Your task to perform on an android device: open app "DoorDash - Food Delivery" (install if not already installed) Image 0: 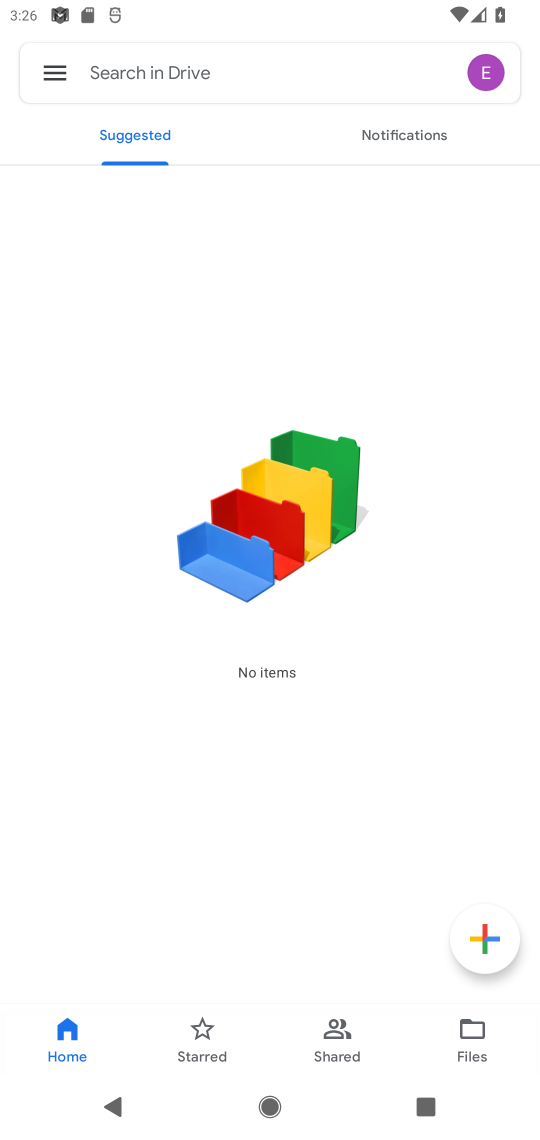
Step 0: press back button
Your task to perform on an android device: open app "DoorDash - Food Delivery" (install if not already installed) Image 1: 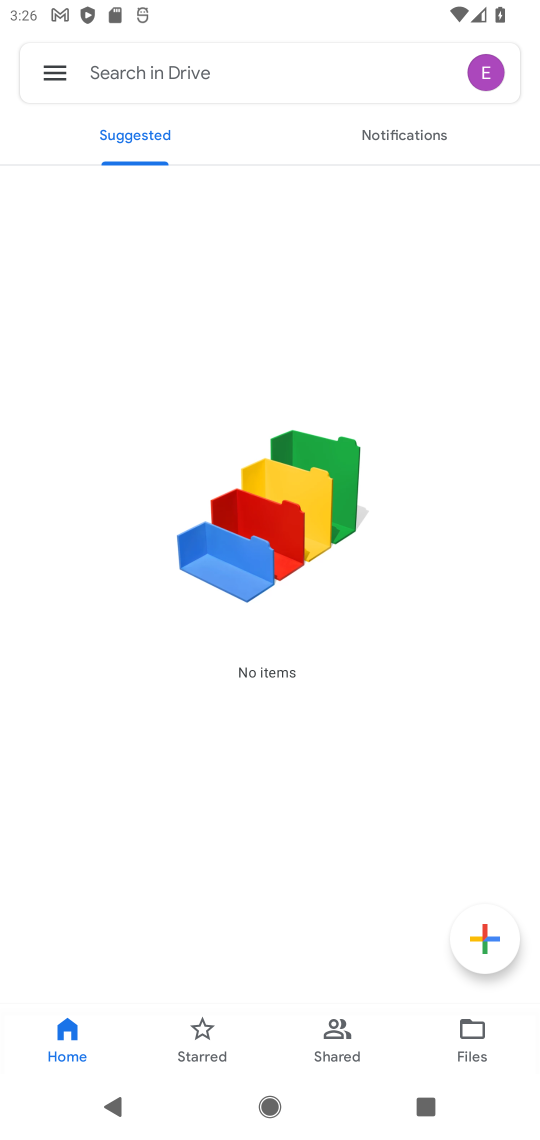
Step 1: press back button
Your task to perform on an android device: open app "DoorDash - Food Delivery" (install if not already installed) Image 2: 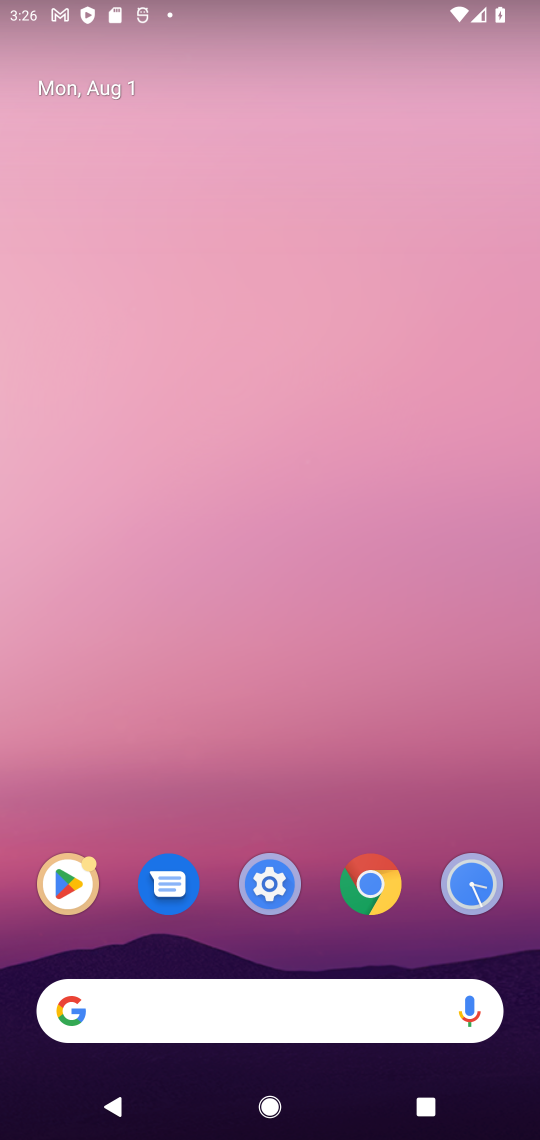
Step 2: drag from (288, 855) to (164, 67)
Your task to perform on an android device: open app "DoorDash - Food Delivery" (install if not already installed) Image 3: 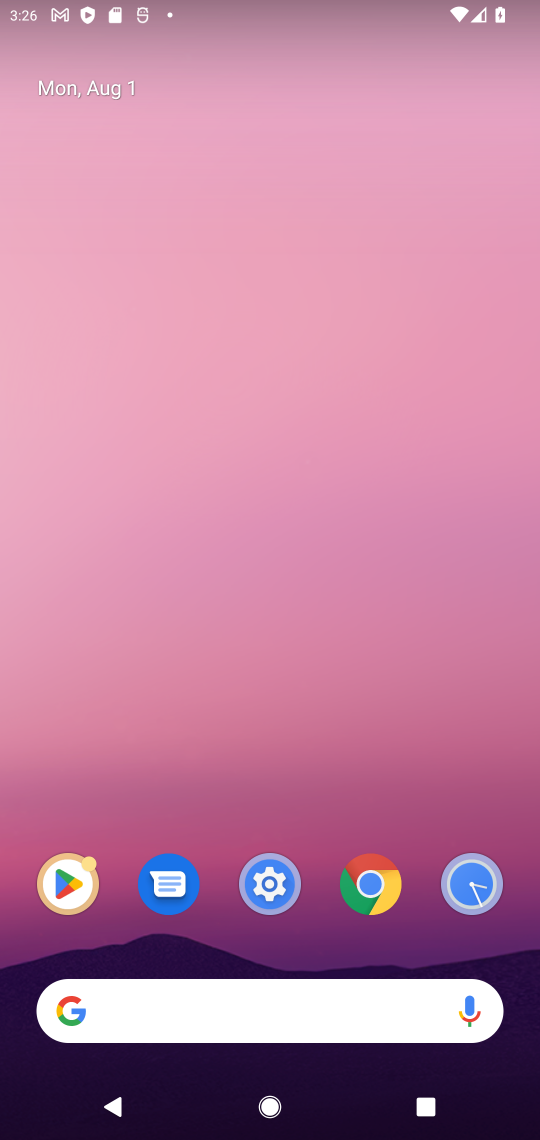
Step 3: drag from (288, 546) to (249, 381)
Your task to perform on an android device: open app "DoorDash - Food Delivery" (install if not already installed) Image 4: 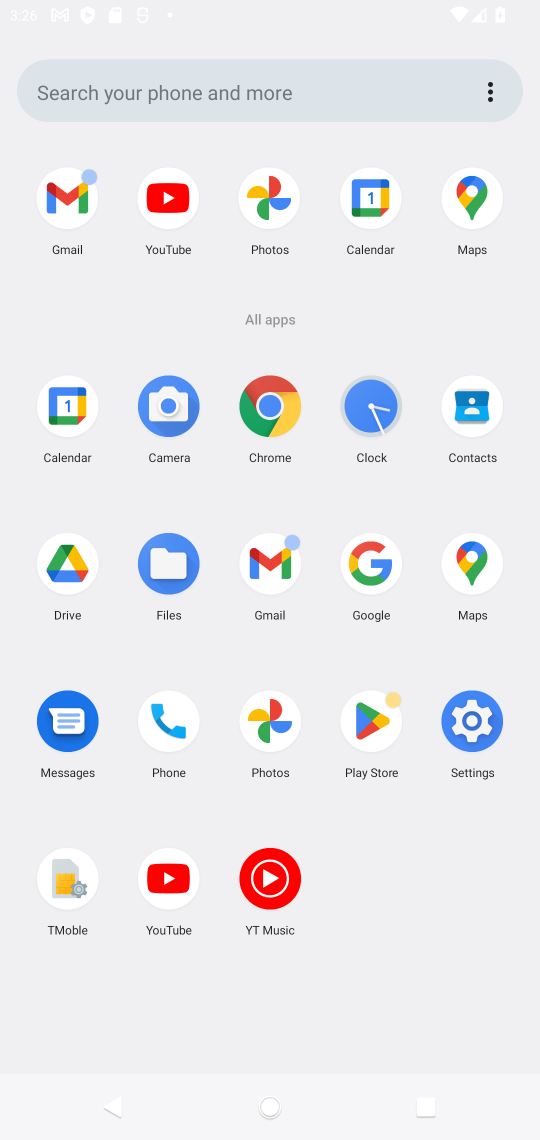
Step 4: drag from (269, 823) to (256, 203)
Your task to perform on an android device: open app "DoorDash - Food Delivery" (install if not already installed) Image 5: 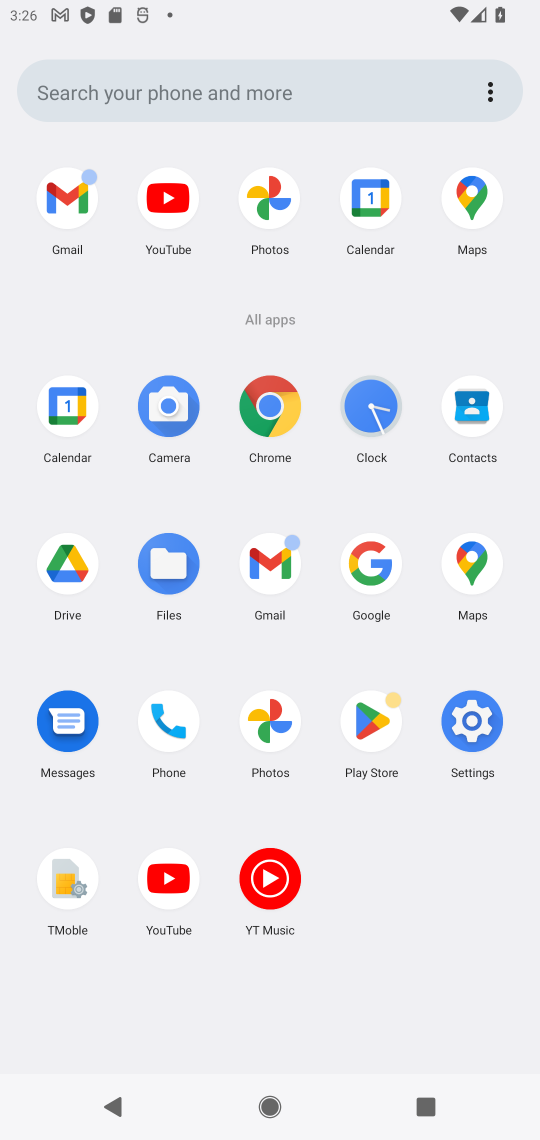
Step 5: click (373, 711)
Your task to perform on an android device: open app "DoorDash - Food Delivery" (install if not already installed) Image 6: 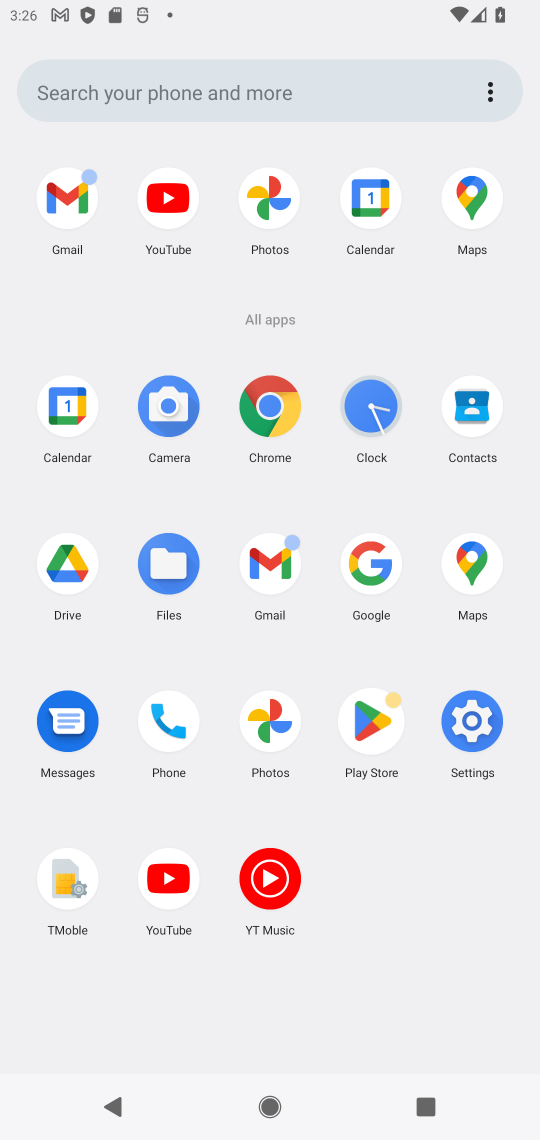
Step 6: click (376, 720)
Your task to perform on an android device: open app "DoorDash - Food Delivery" (install if not already installed) Image 7: 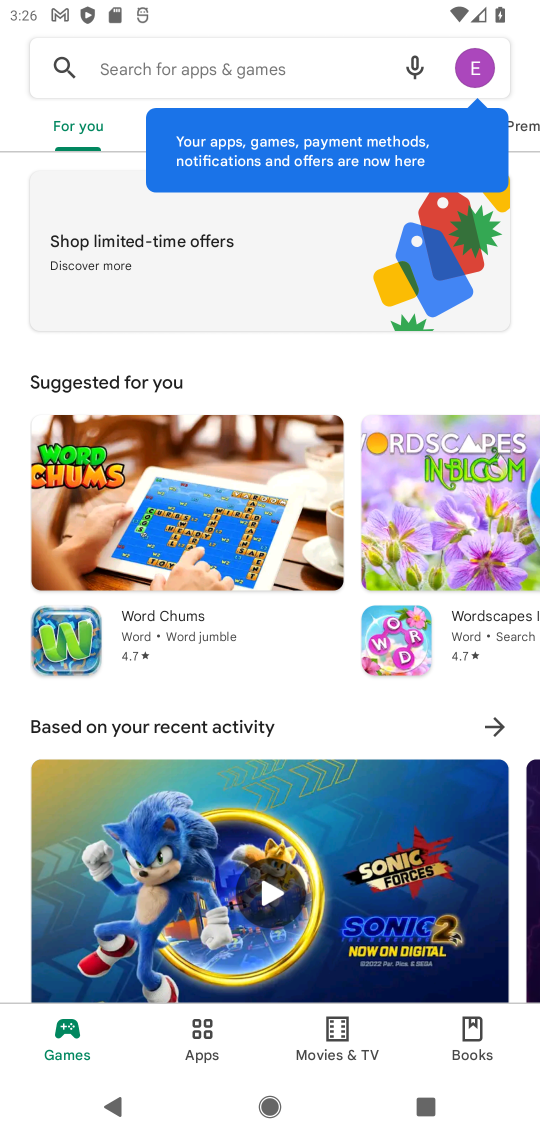
Step 7: drag from (411, 689) to (360, 23)
Your task to perform on an android device: open app "DoorDash - Food Delivery" (install if not already installed) Image 8: 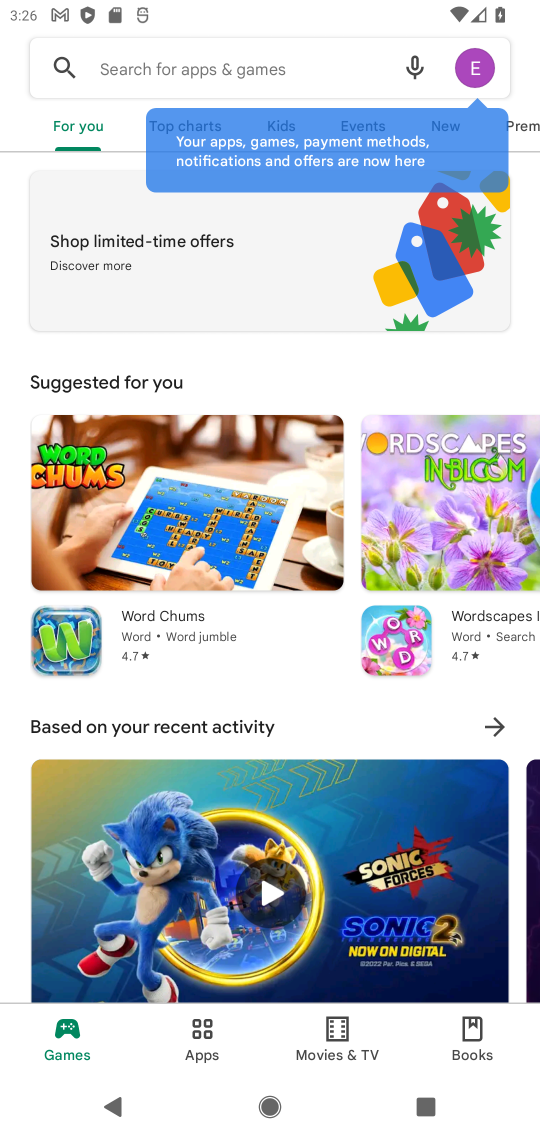
Step 8: drag from (267, 584) to (267, 301)
Your task to perform on an android device: open app "DoorDash - Food Delivery" (install if not already installed) Image 9: 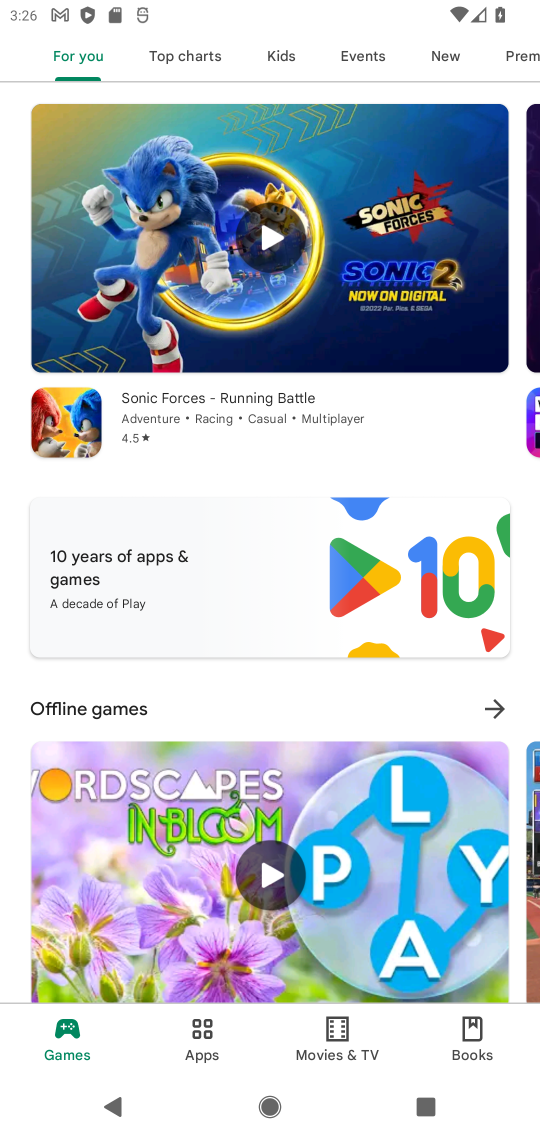
Step 9: click (66, 31)
Your task to perform on an android device: open app "DoorDash - Food Delivery" (install if not already installed) Image 10: 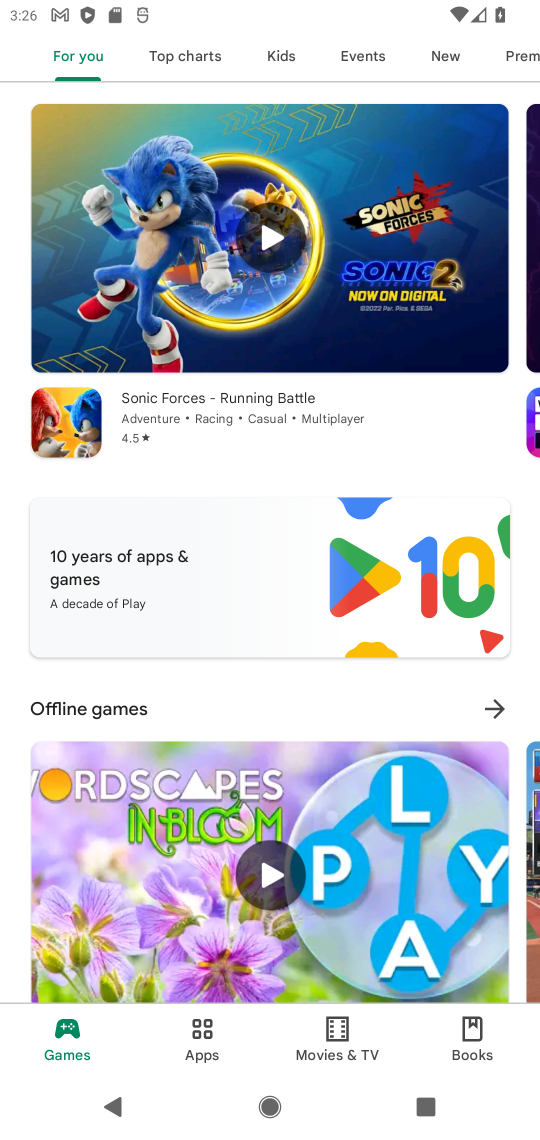
Step 10: click (66, 31)
Your task to perform on an android device: open app "DoorDash - Food Delivery" (install if not already installed) Image 11: 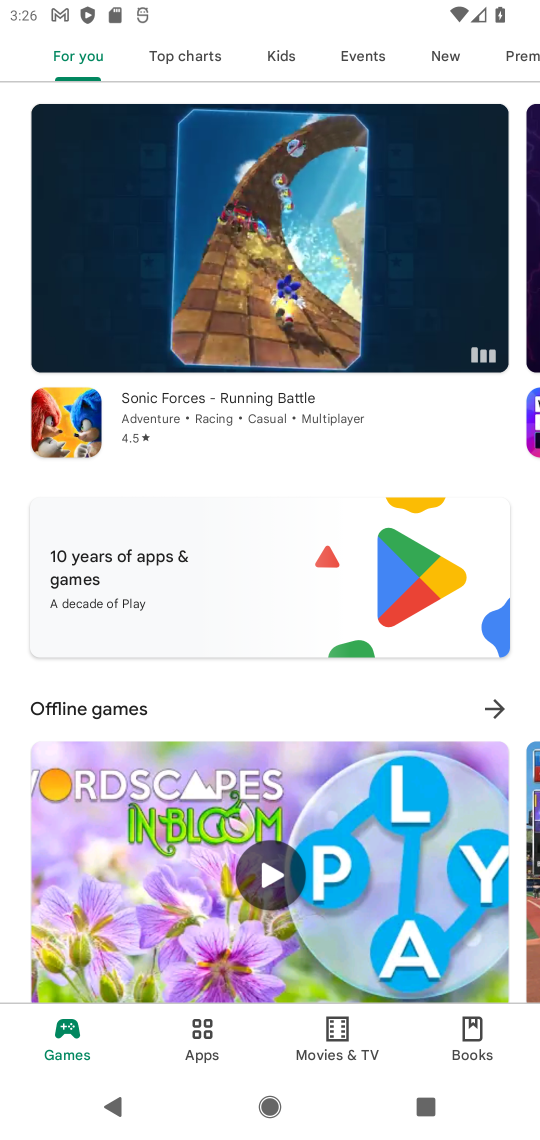
Step 11: press back button
Your task to perform on an android device: open app "DoorDash - Food Delivery" (install if not already installed) Image 12: 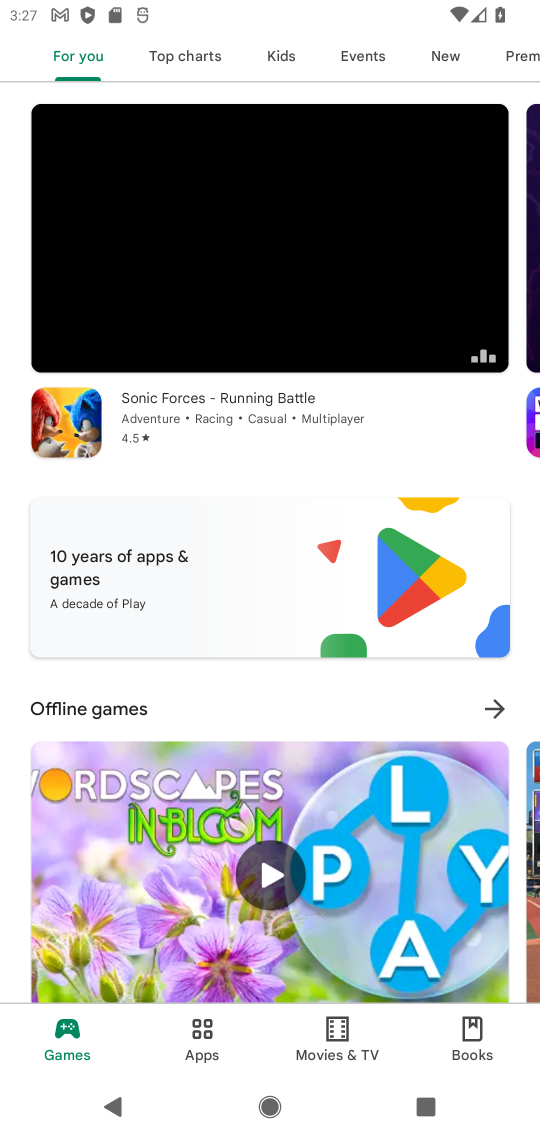
Step 12: press back button
Your task to perform on an android device: open app "DoorDash - Food Delivery" (install if not already installed) Image 13: 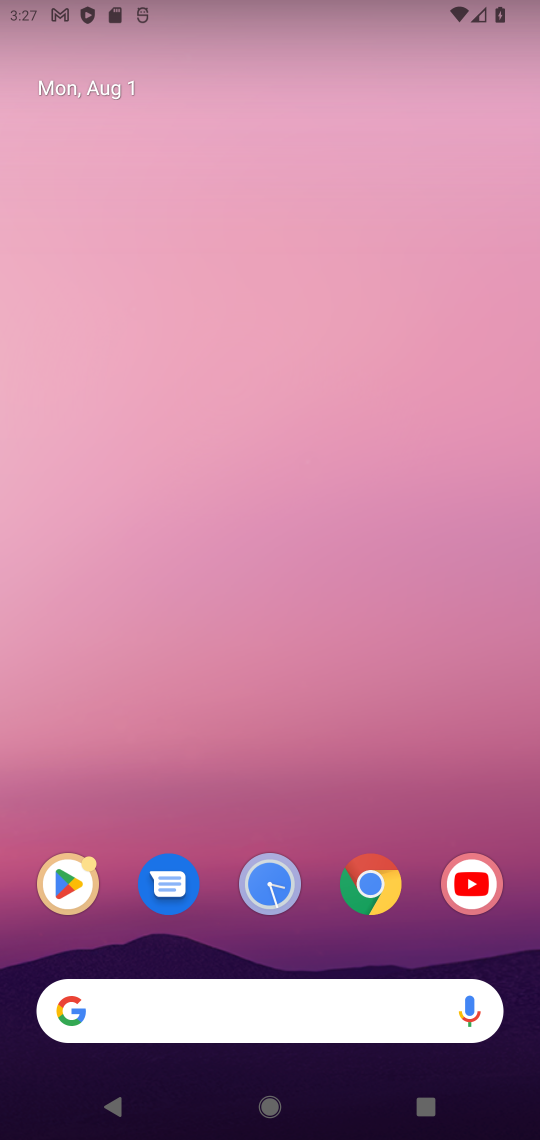
Step 13: click (179, 67)
Your task to perform on an android device: open app "DoorDash - Food Delivery" (install if not already installed) Image 14: 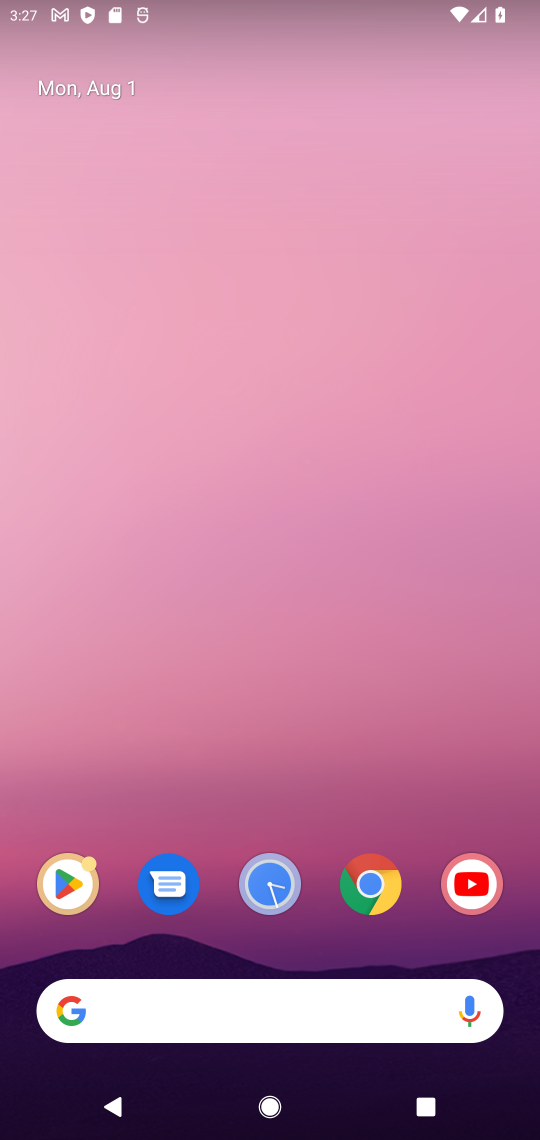
Step 14: drag from (268, 631) to (263, 58)
Your task to perform on an android device: open app "DoorDash - Food Delivery" (install if not already installed) Image 15: 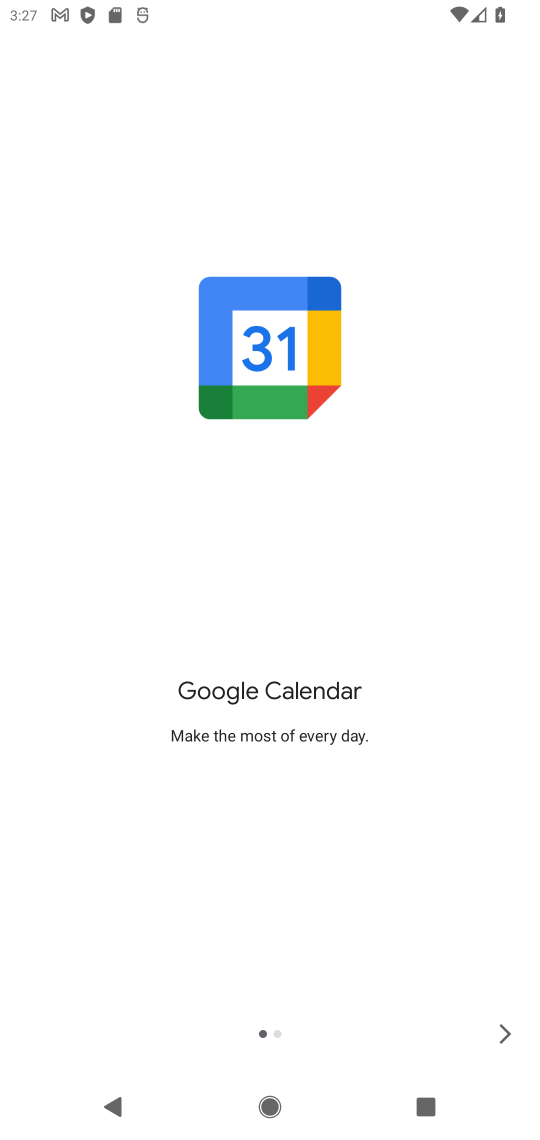
Step 15: press back button
Your task to perform on an android device: open app "DoorDash - Food Delivery" (install if not already installed) Image 16: 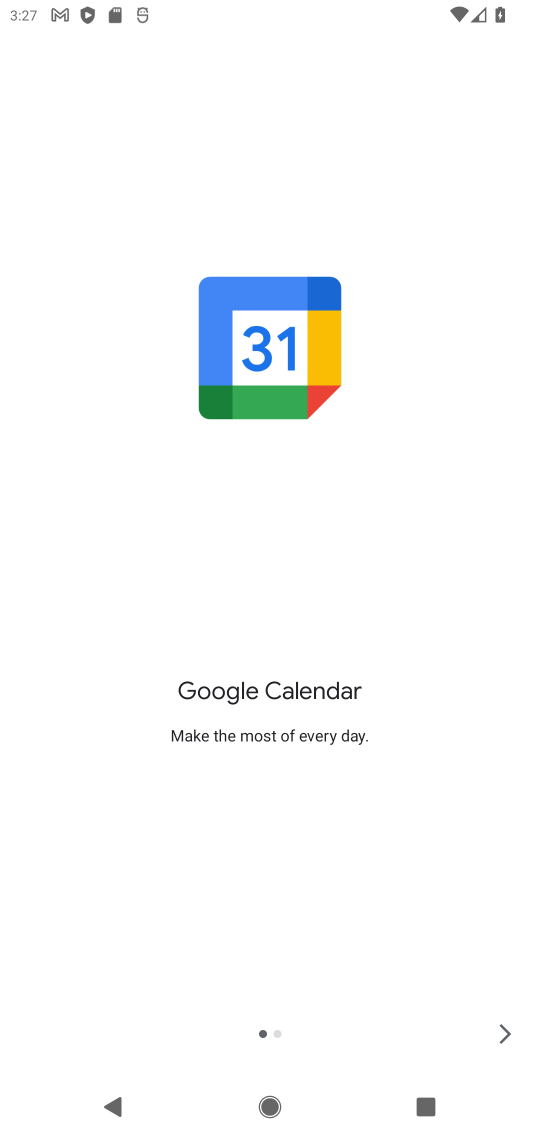
Step 16: press back button
Your task to perform on an android device: open app "DoorDash - Food Delivery" (install if not already installed) Image 17: 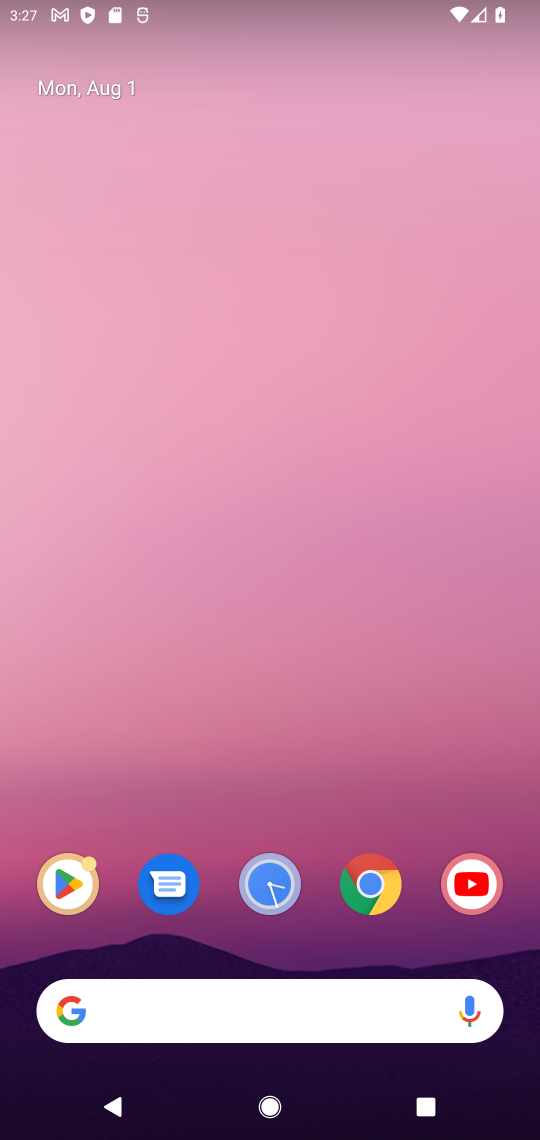
Step 17: drag from (364, 754) to (300, 96)
Your task to perform on an android device: open app "DoorDash - Food Delivery" (install if not already installed) Image 18: 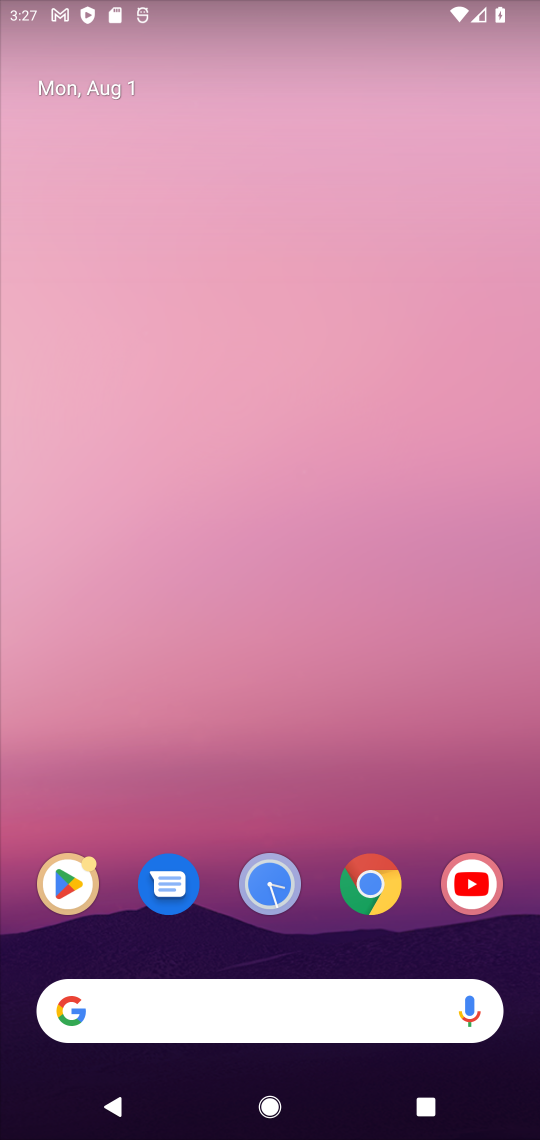
Step 18: drag from (401, 600) to (369, 147)
Your task to perform on an android device: open app "DoorDash - Food Delivery" (install if not already installed) Image 19: 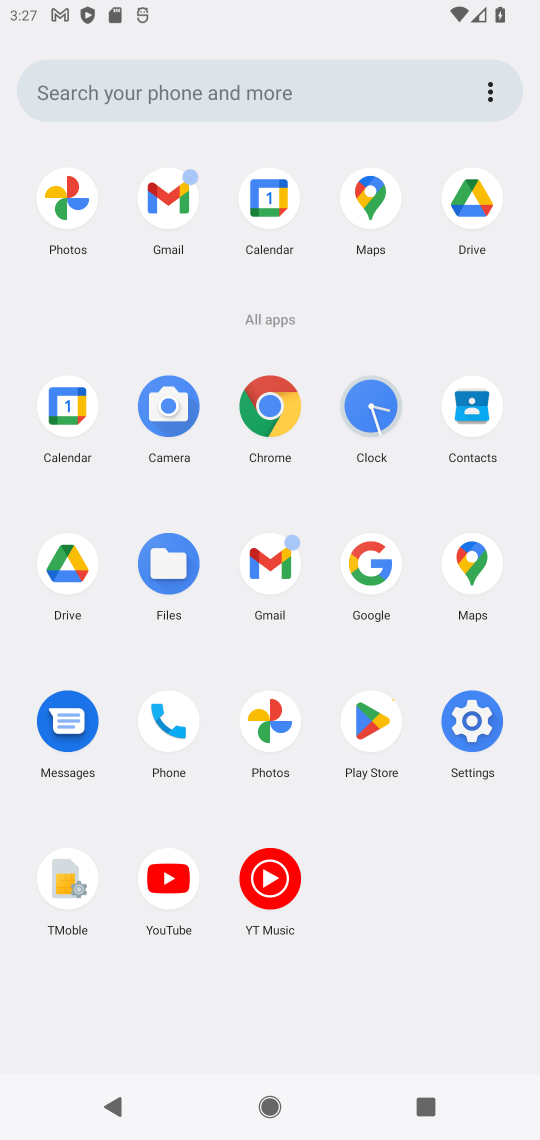
Step 19: click (363, 705)
Your task to perform on an android device: open app "DoorDash - Food Delivery" (install if not already installed) Image 20: 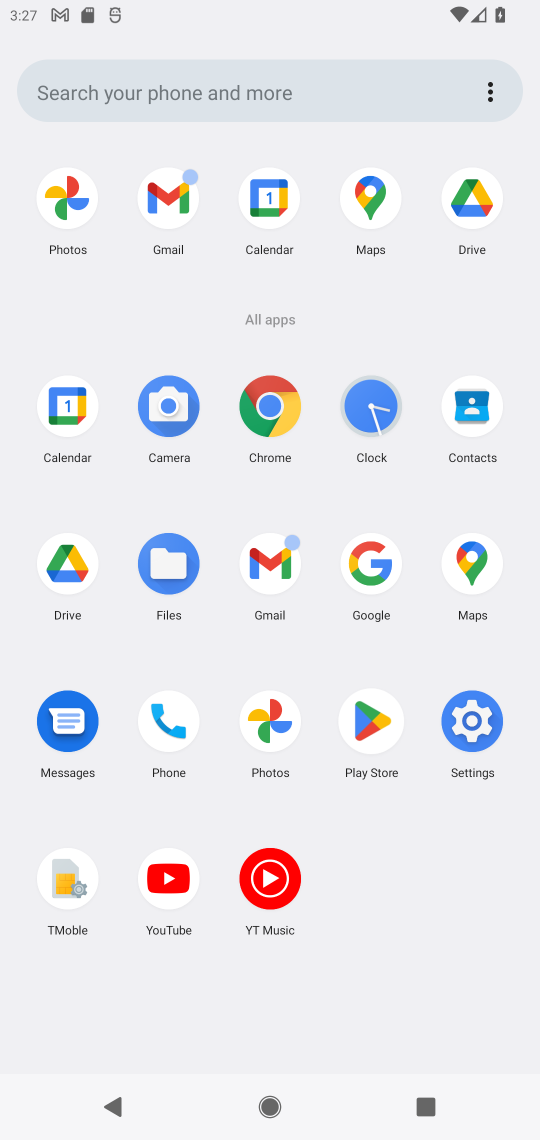
Step 20: click (361, 705)
Your task to perform on an android device: open app "DoorDash - Food Delivery" (install if not already installed) Image 21: 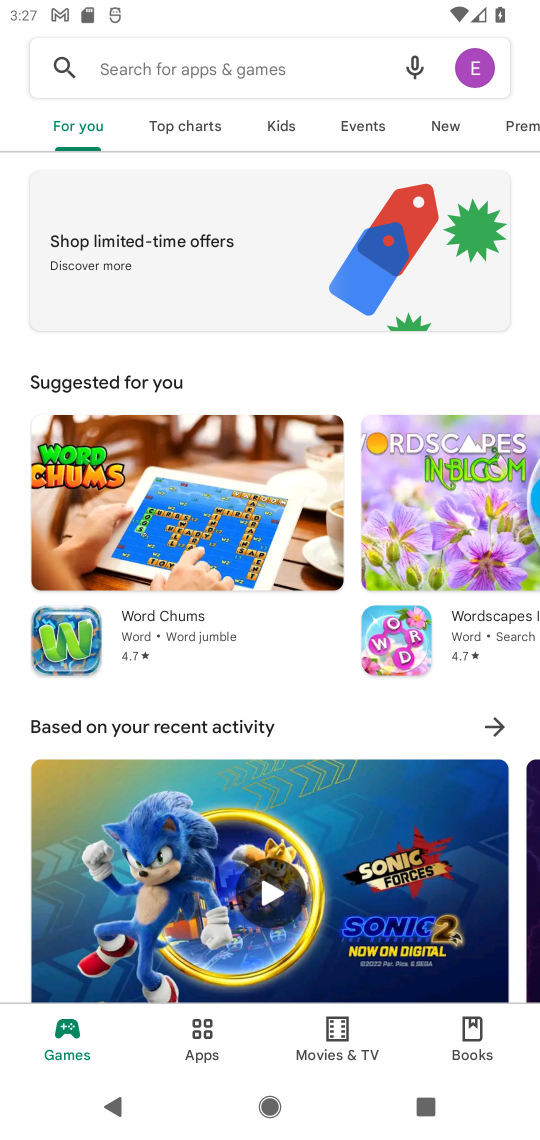
Step 21: click (140, 71)
Your task to perform on an android device: open app "DoorDash - Food Delivery" (install if not already installed) Image 22: 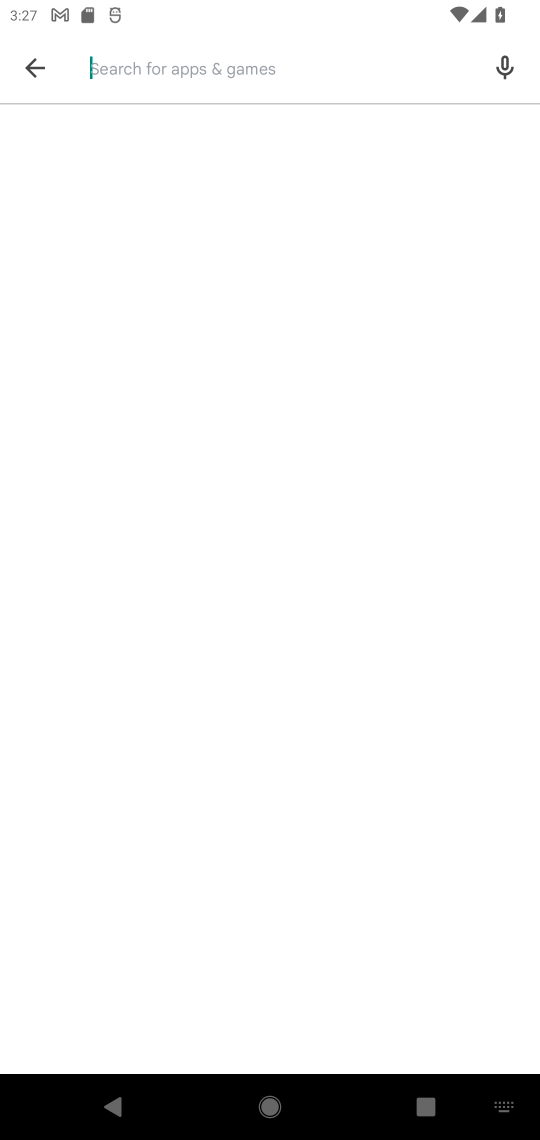
Step 22: type "DoorDash - Food Delivery"
Your task to perform on an android device: open app "DoorDash - Food Delivery" (install if not already installed) Image 23: 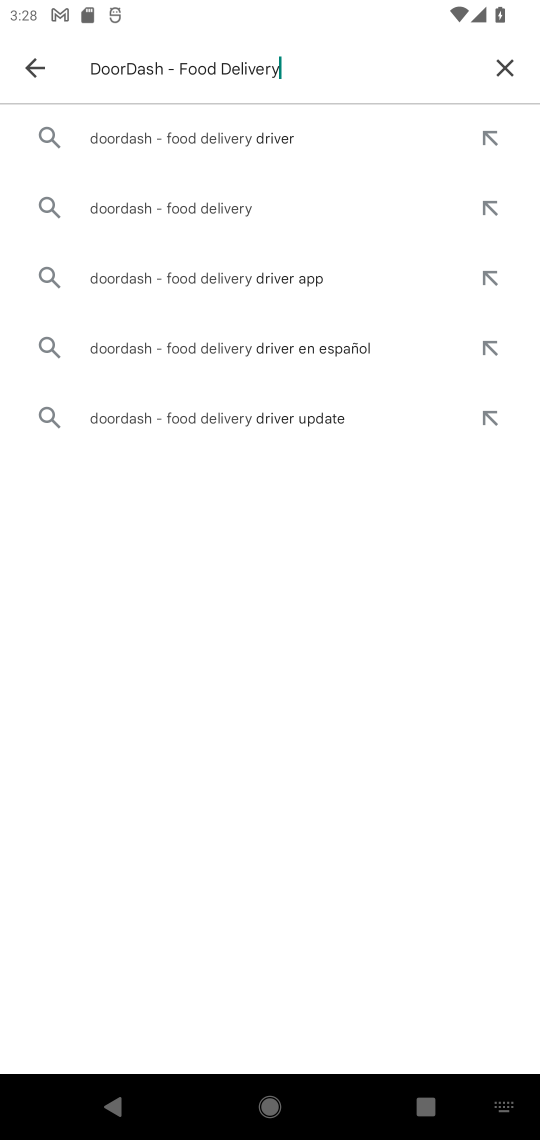
Step 23: click (248, 135)
Your task to perform on an android device: open app "DoorDash - Food Delivery" (install if not already installed) Image 24: 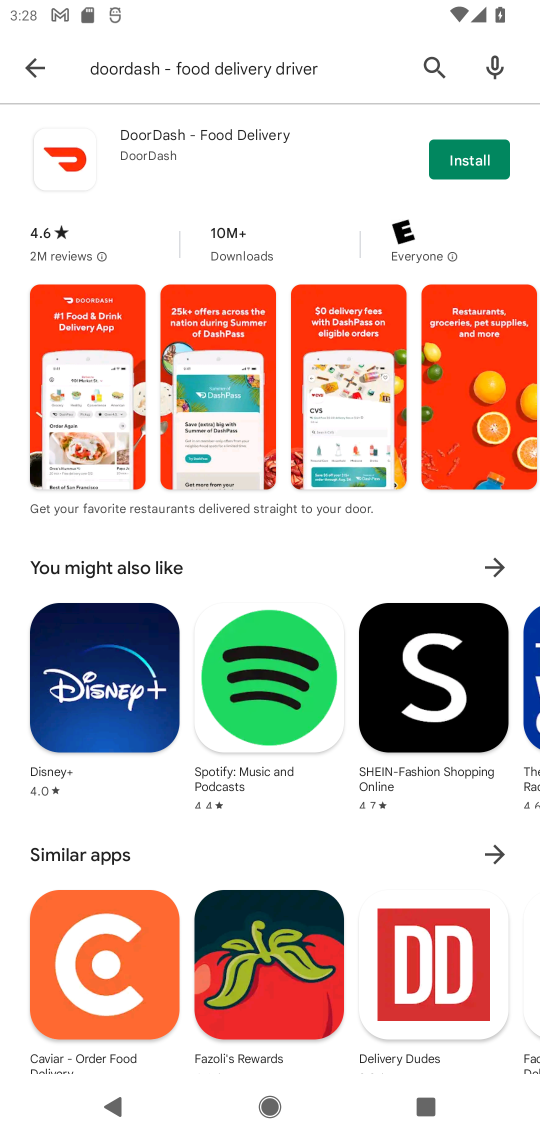
Step 24: click (471, 148)
Your task to perform on an android device: open app "DoorDash - Food Delivery" (install if not already installed) Image 25: 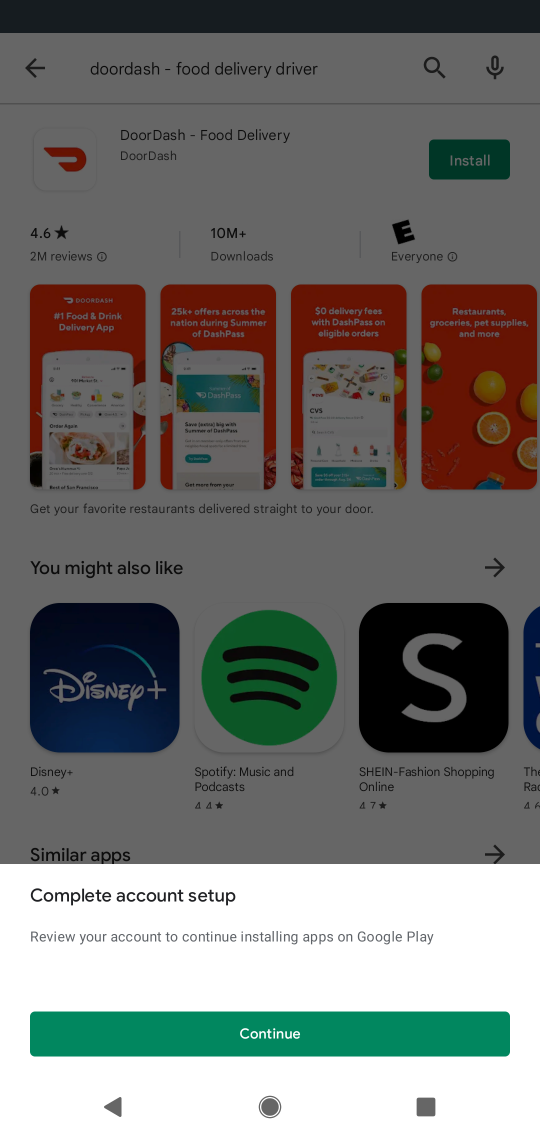
Step 25: click (283, 1033)
Your task to perform on an android device: open app "DoorDash - Food Delivery" (install if not already installed) Image 26: 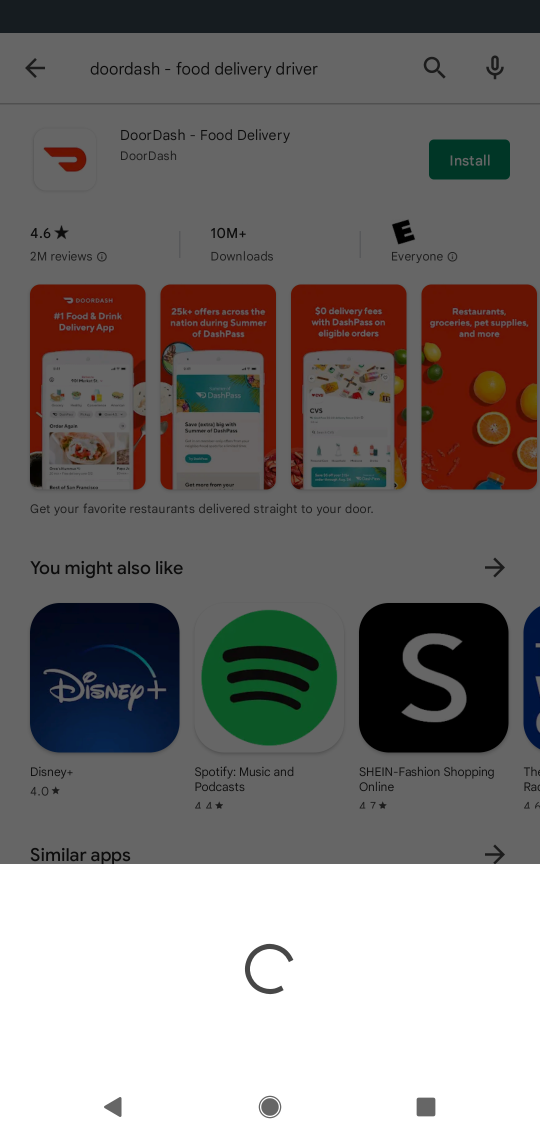
Step 26: click (270, 1037)
Your task to perform on an android device: open app "DoorDash - Food Delivery" (install if not already installed) Image 27: 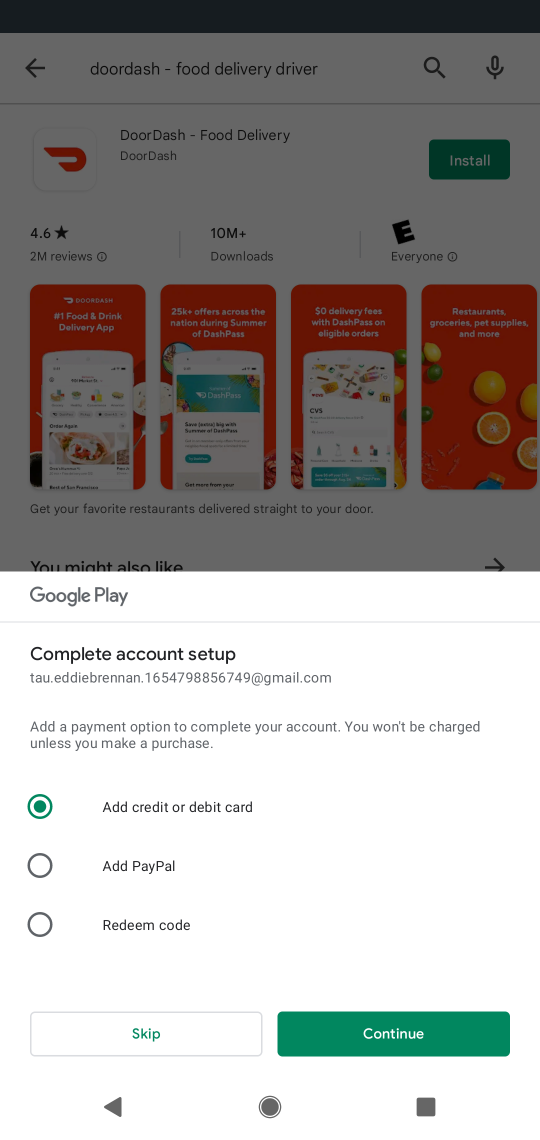
Step 27: click (148, 1023)
Your task to perform on an android device: open app "DoorDash - Food Delivery" (install if not already installed) Image 28: 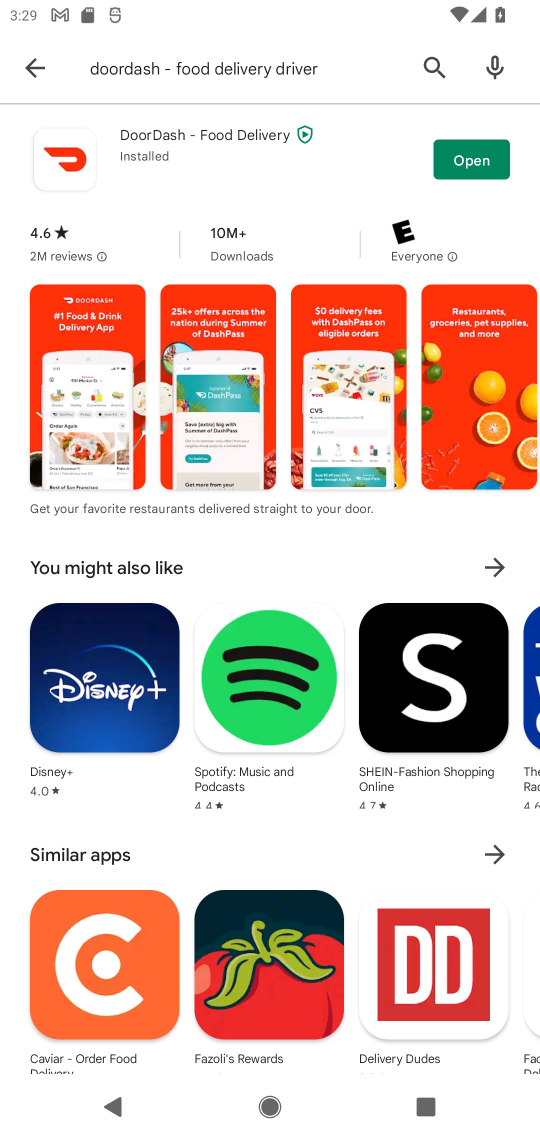
Step 28: click (475, 134)
Your task to perform on an android device: open app "DoorDash - Food Delivery" (install if not already installed) Image 29: 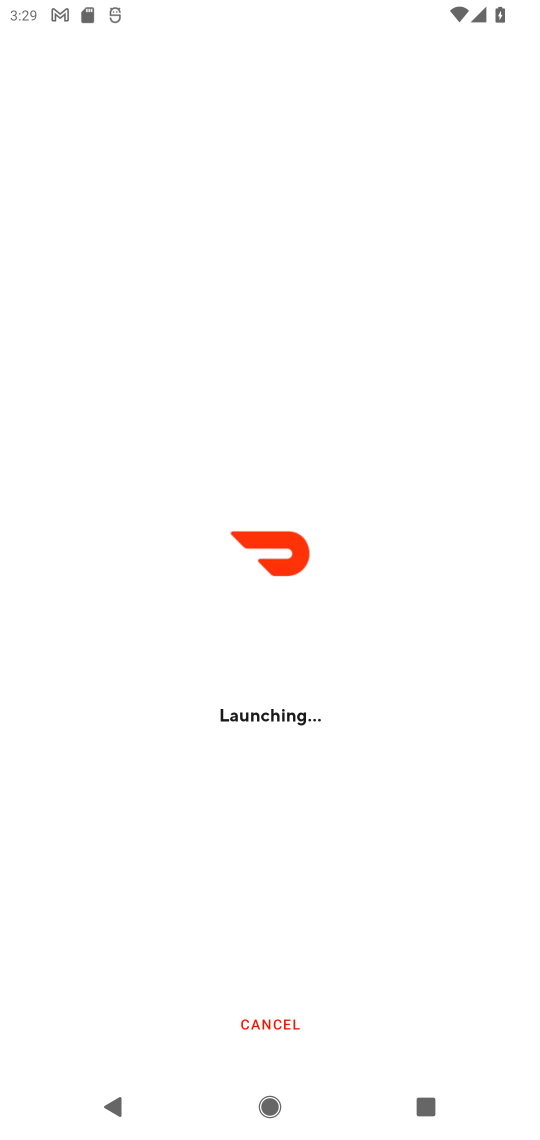
Step 29: task complete